Your task to perform on an android device: read, delete, or share a saved page in the chrome app Image 0: 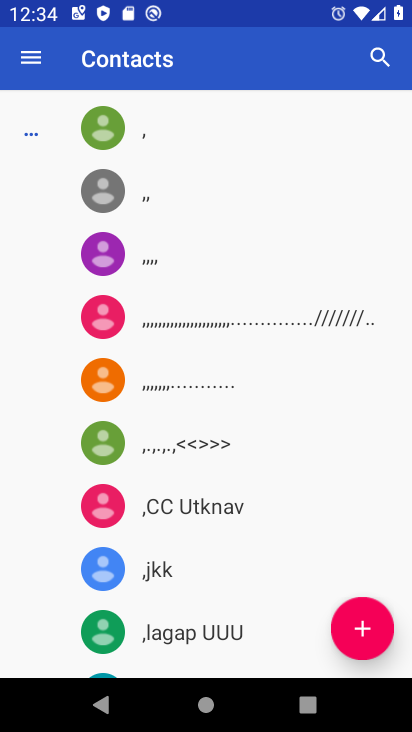
Step 0: press home button
Your task to perform on an android device: read, delete, or share a saved page in the chrome app Image 1: 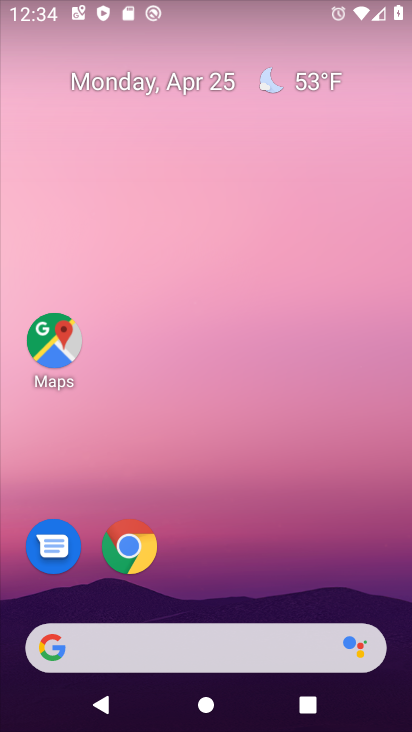
Step 1: click (155, 533)
Your task to perform on an android device: read, delete, or share a saved page in the chrome app Image 2: 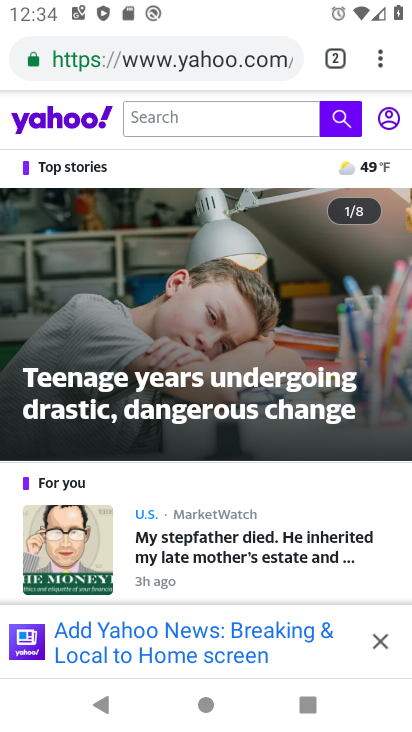
Step 2: drag from (379, 64) to (218, 485)
Your task to perform on an android device: read, delete, or share a saved page in the chrome app Image 3: 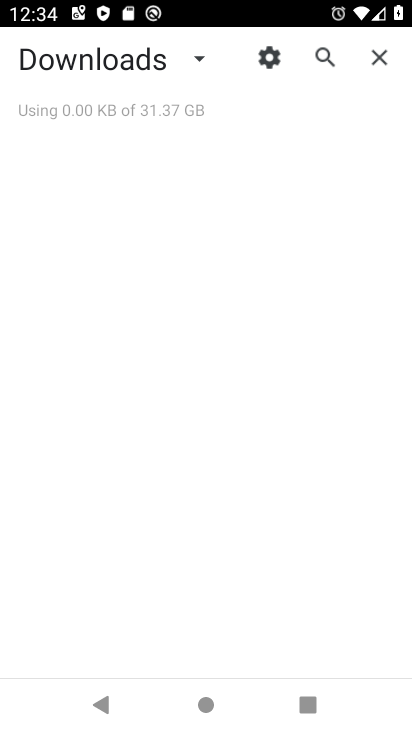
Step 3: click (188, 60)
Your task to perform on an android device: read, delete, or share a saved page in the chrome app Image 4: 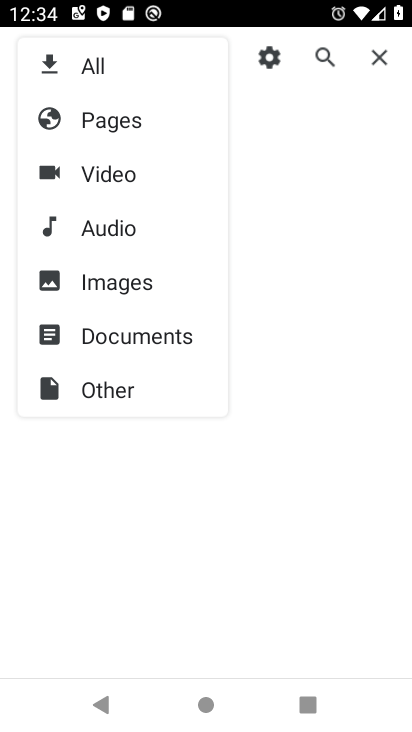
Step 4: click (108, 123)
Your task to perform on an android device: read, delete, or share a saved page in the chrome app Image 5: 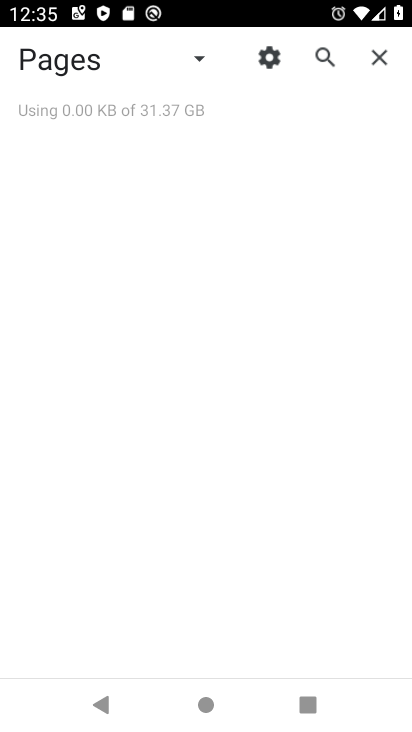
Step 5: task complete